Your task to perform on an android device: Open Chrome and go to settings Image 0: 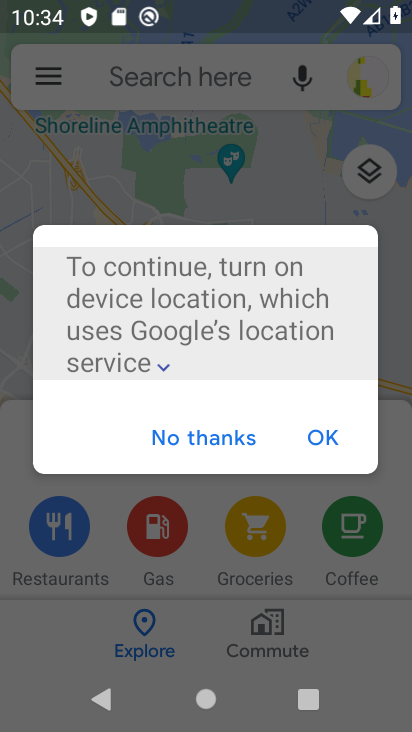
Step 0: press home button
Your task to perform on an android device: Open Chrome and go to settings Image 1: 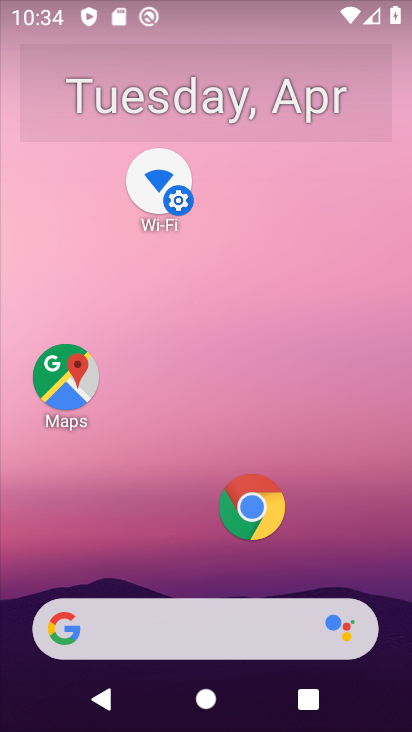
Step 1: click (252, 520)
Your task to perform on an android device: Open Chrome and go to settings Image 2: 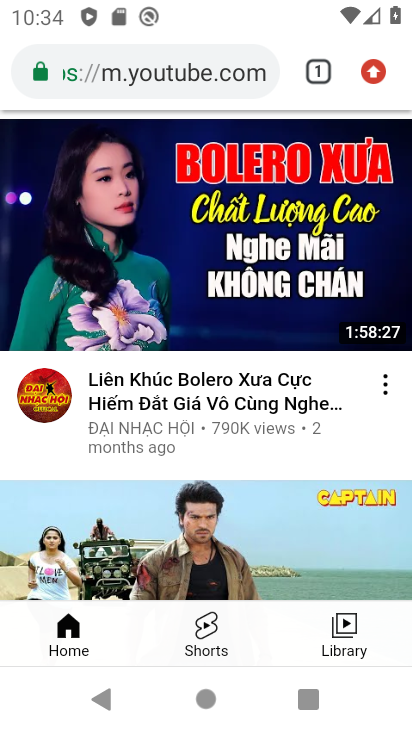
Step 2: press home button
Your task to perform on an android device: Open Chrome and go to settings Image 3: 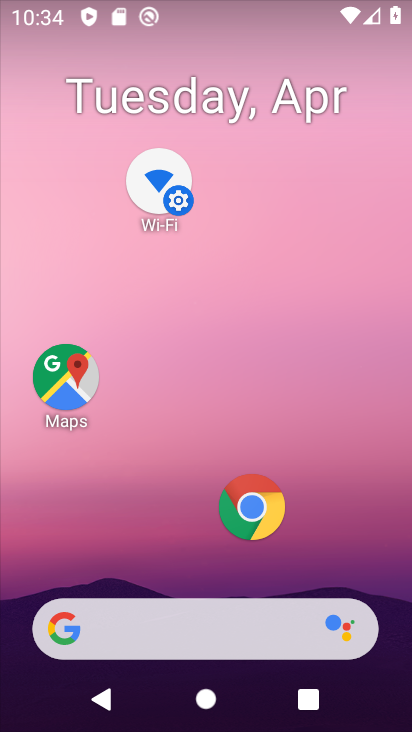
Step 3: click (248, 500)
Your task to perform on an android device: Open Chrome and go to settings Image 4: 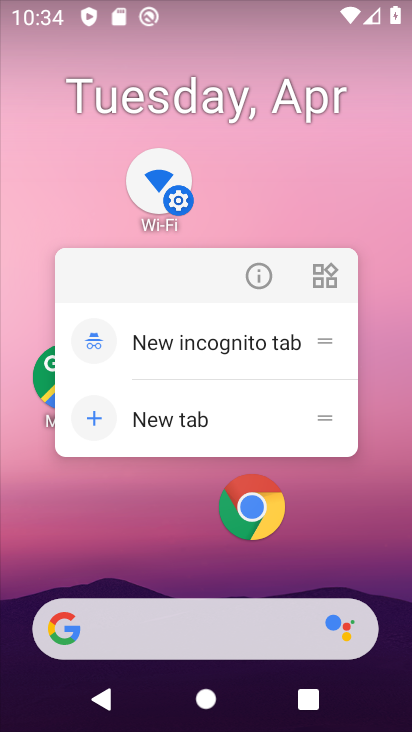
Step 4: click (248, 498)
Your task to perform on an android device: Open Chrome and go to settings Image 5: 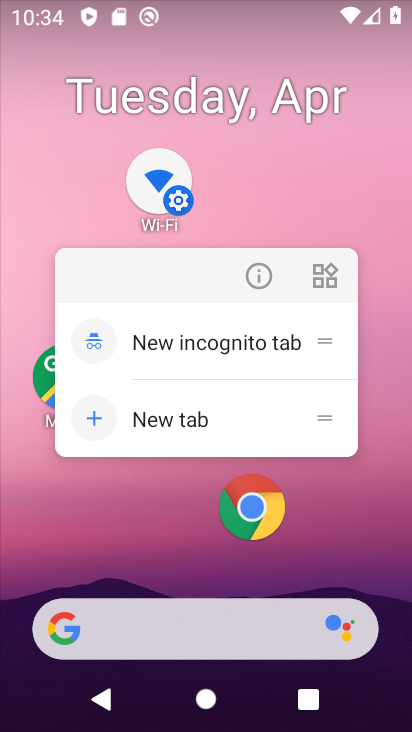
Step 5: click (248, 498)
Your task to perform on an android device: Open Chrome and go to settings Image 6: 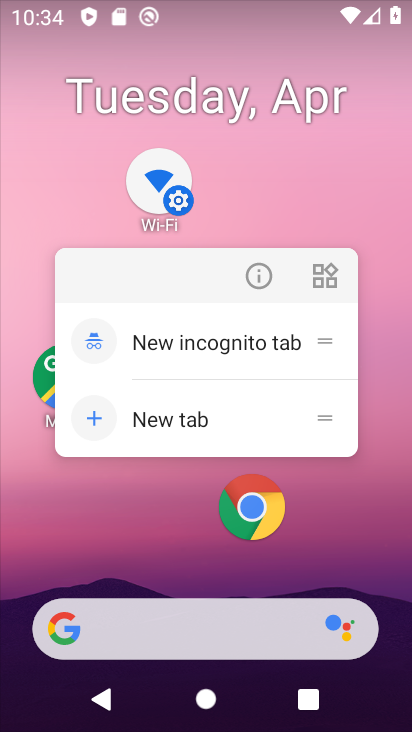
Step 6: click (264, 506)
Your task to perform on an android device: Open Chrome and go to settings Image 7: 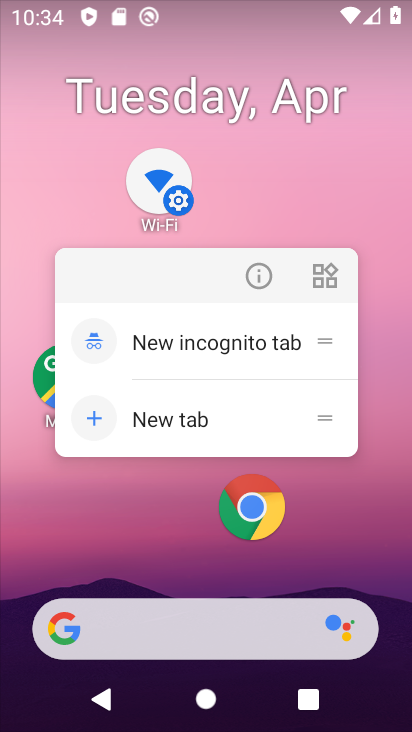
Step 7: click (242, 500)
Your task to perform on an android device: Open Chrome and go to settings Image 8: 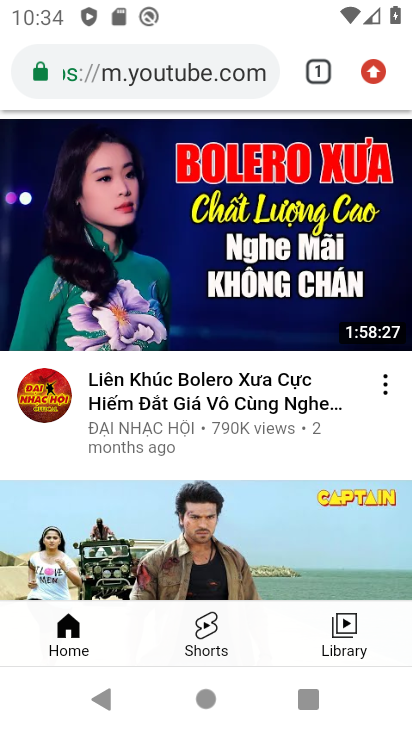
Step 8: click (311, 71)
Your task to perform on an android device: Open Chrome and go to settings Image 9: 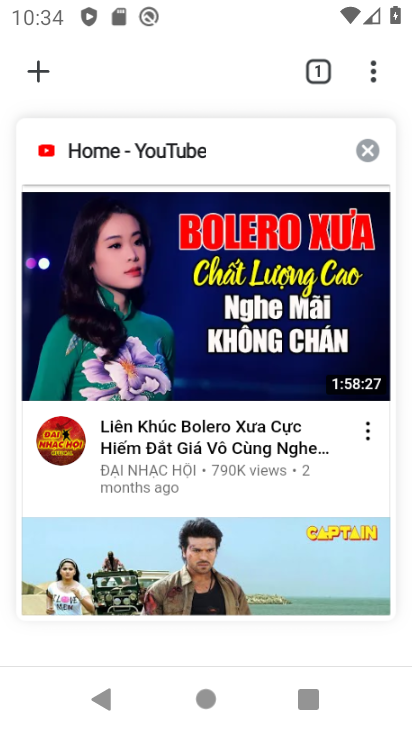
Step 9: click (374, 66)
Your task to perform on an android device: Open Chrome and go to settings Image 10: 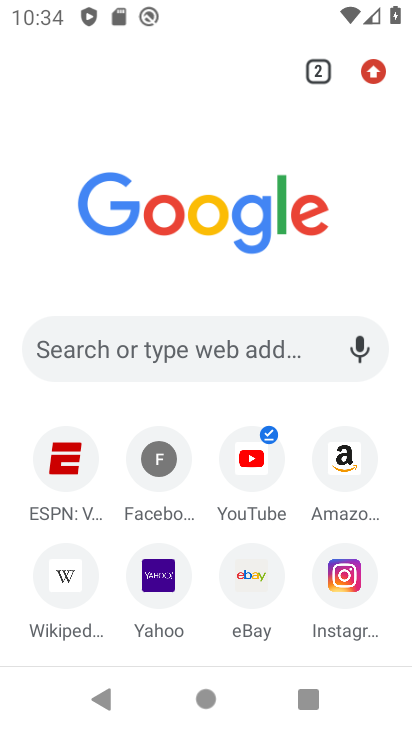
Step 10: click (323, 74)
Your task to perform on an android device: Open Chrome and go to settings Image 11: 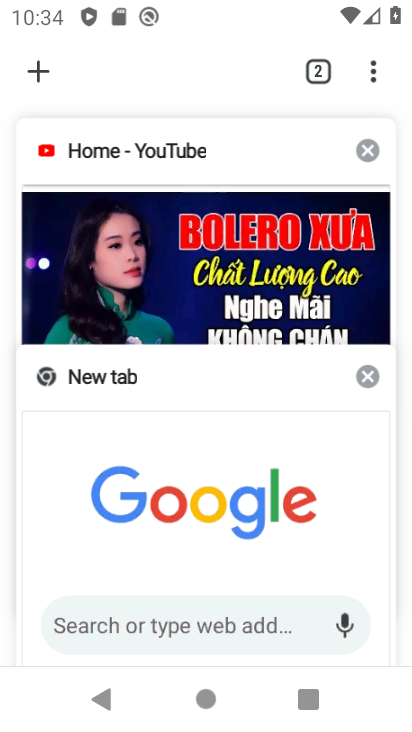
Step 11: click (370, 78)
Your task to perform on an android device: Open Chrome and go to settings Image 12: 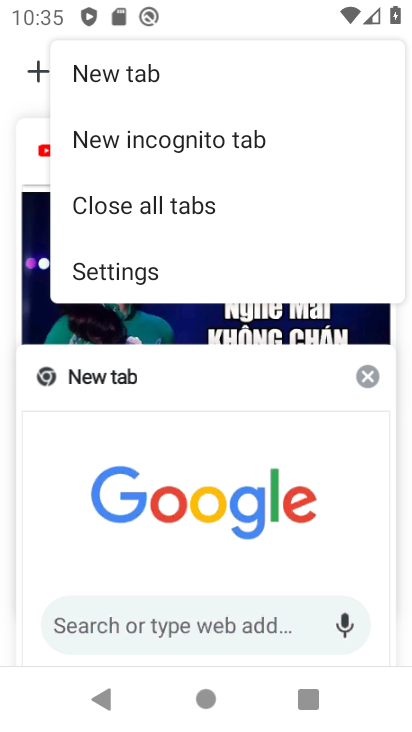
Step 12: click (127, 257)
Your task to perform on an android device: Open Chrome and go to settings Image 13: 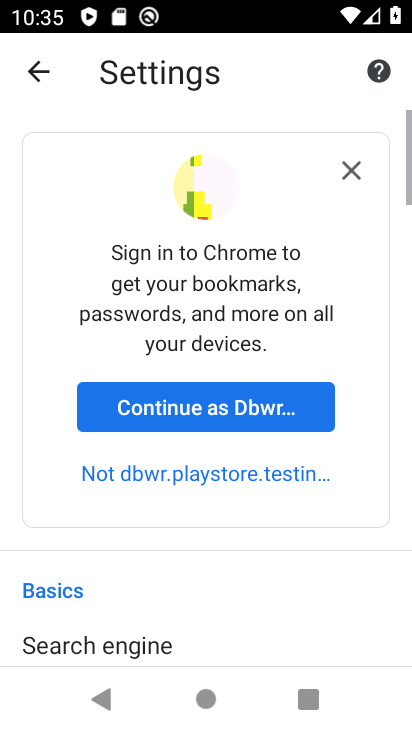
Step 13: task complete